Your task to perform on an android device: Open sound settings Image 0: 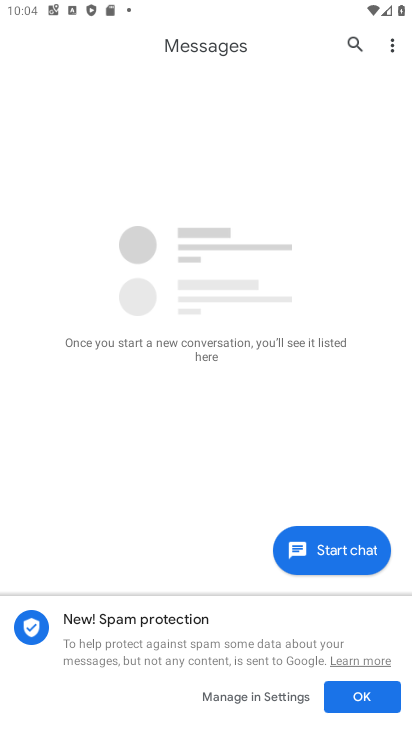
Step 0: press home button
Your task to perform on an android device: Open sound settings Image 1: 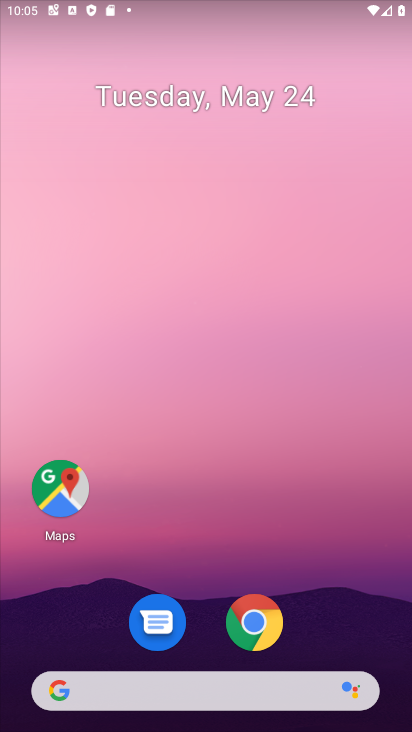
Step 1: drag from (238, 711) to (281, 144)
Your task to perform on an android device: Open sound settings Image 2: 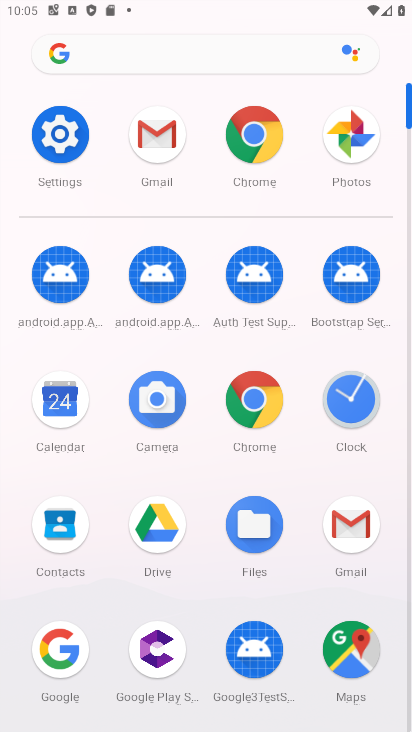
Step 2: click (59, 116)
Your task to perform on an android device: Open sound settings Image 3: 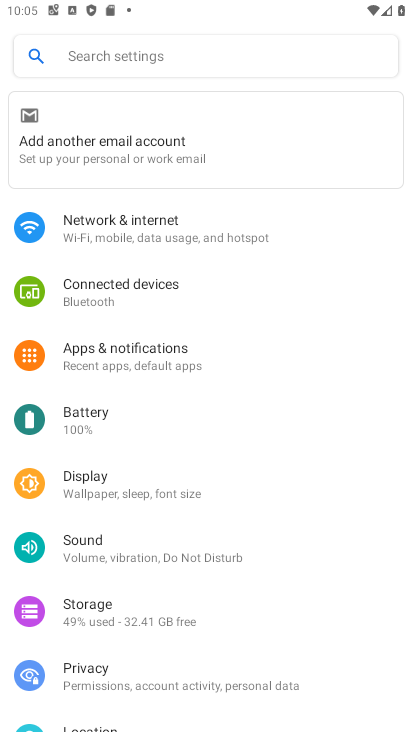
Step 3: click (128, 51)
Your task to perform on an android device: Open sound settings Image 4: 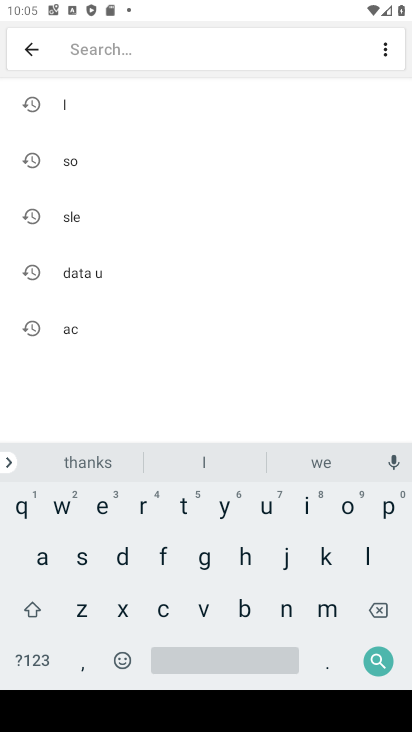
Step 4: click (72, 158)
Your task to perform on an android device: Open sound settings Image 5: 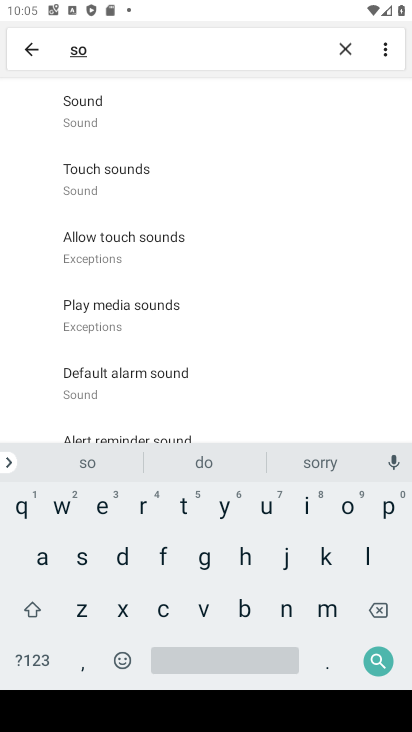
Step 5: click (106, 110)
Your task to perform on an android device: Open sound settings Image 6: 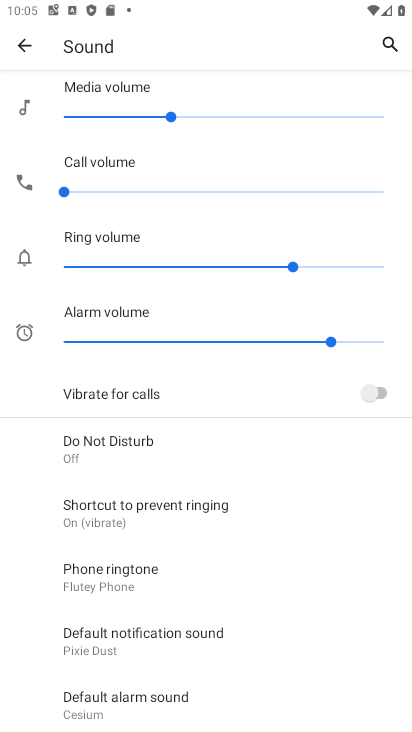
Step 6: task complete